Your task to perform on an android device: turn on javascript in the chrome app Image 0: 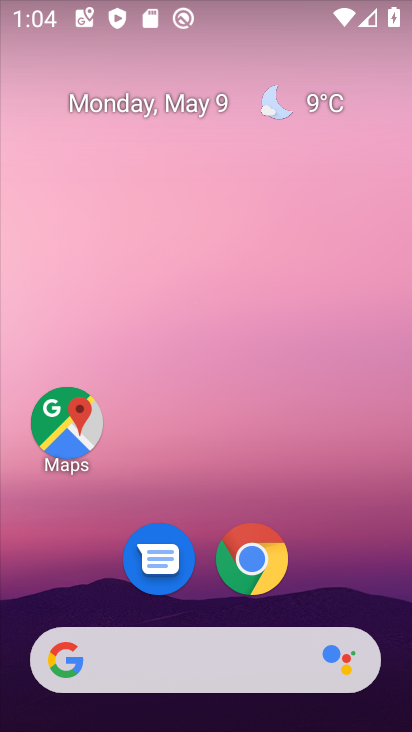
Step 0: drag from (330, 584) to (369, 255)
Your task to perform on an android device: turn on javascript in the chrome app Image 1: 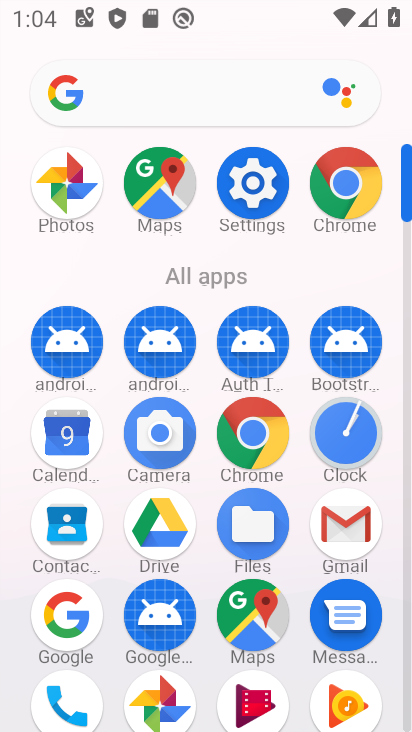
Step 1: click (353, 184)
Your task to perform on an android device: turn on javascript in the chrome app Image 2: 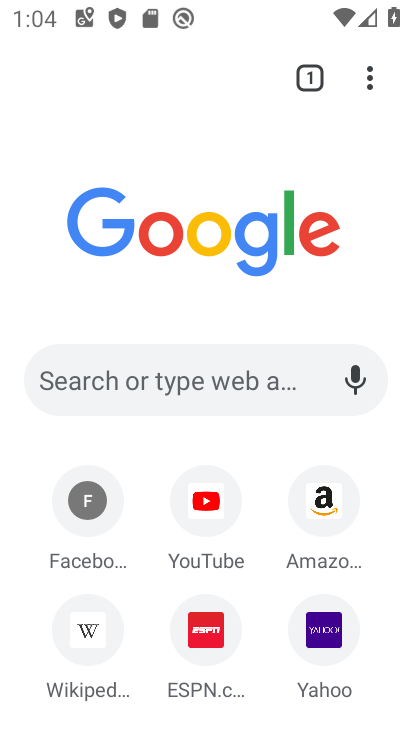
Step 2: click (372, 77)
Your task to perform on an android device: turn on javascript in the chrome app Image 3: 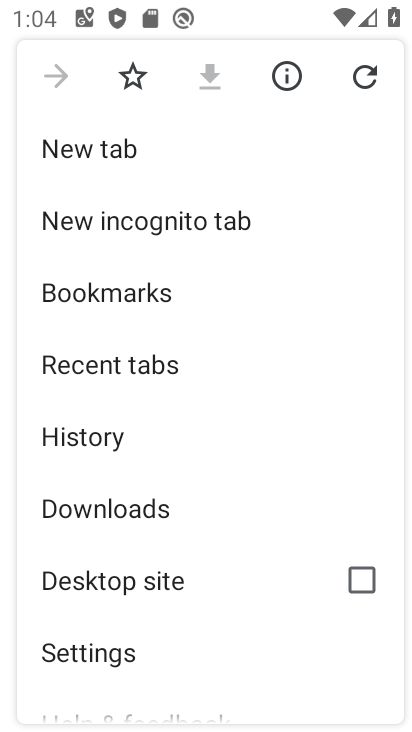
Step 3: click (139, 652)
Your task to perform on an android device: turn on javascript in the chrome app Image 4: 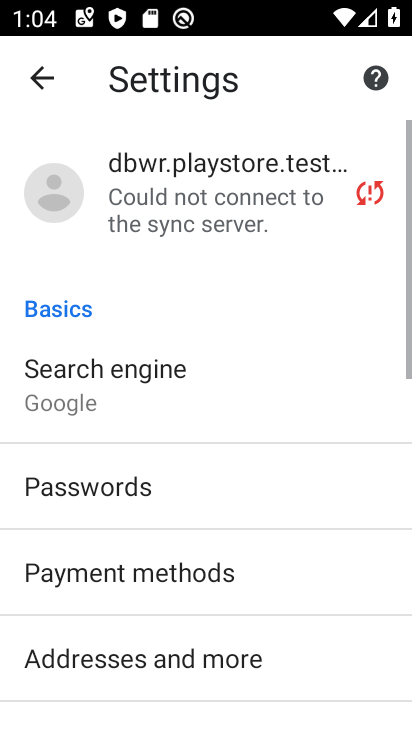
Step 4: drag from (287, 638) to (313, 277)
Your task to perform on an android device: turn on javascript in the chrome app Image 5: 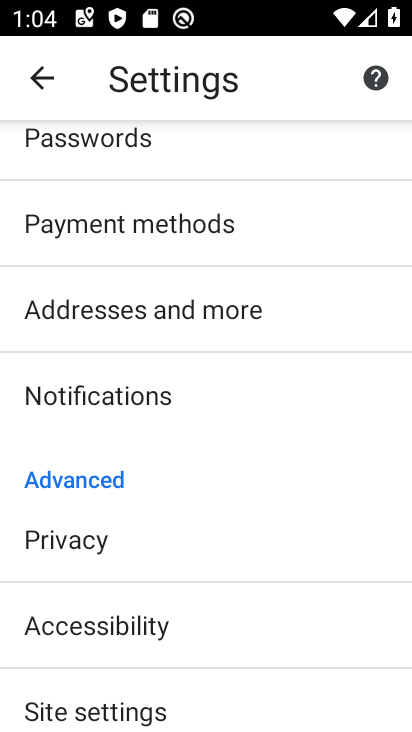
Step 5: drag from (186, 697) to (225, 460)
Your task to perform on an android device: turn on javascript in the chrome app Image 6: 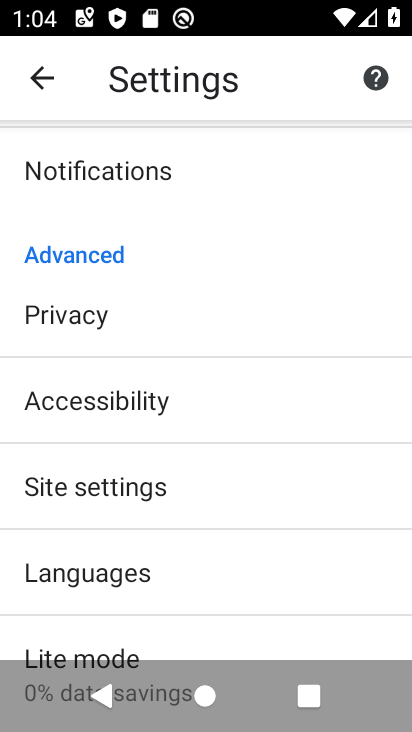
Step 6: click (221, 528)
Your task to perform on an android device: turn on javascript in the chrome app Image 7: 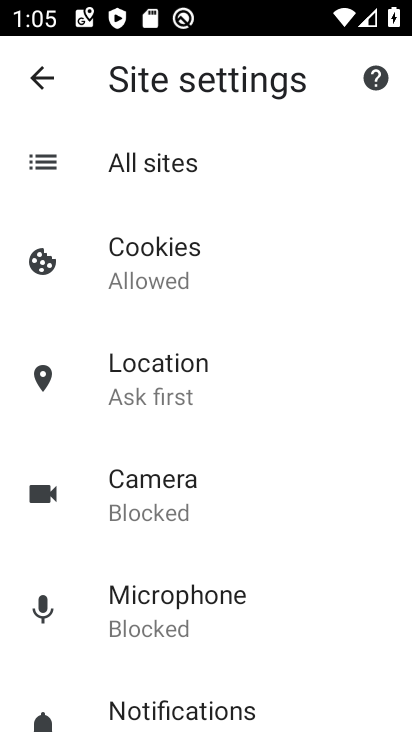
Step 7: drag from (276, 671) to (275, 439)
Your task to perform on an android device: turn on javascript in the chrome app Image 8: 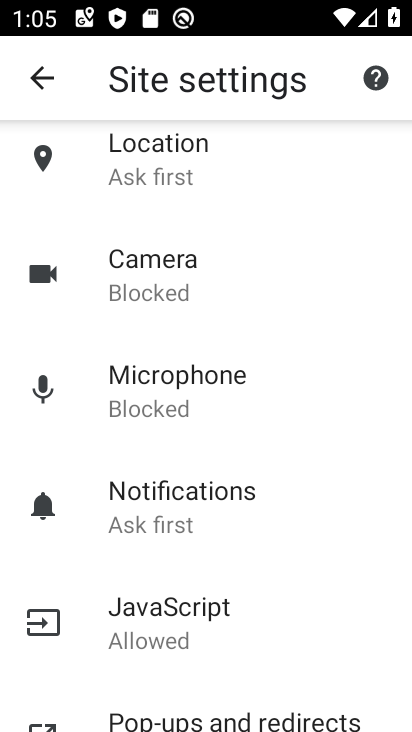
Step 8: click (220, 613)
Your task to perform on an android device: turn on javascript in the chrome app Image 9: 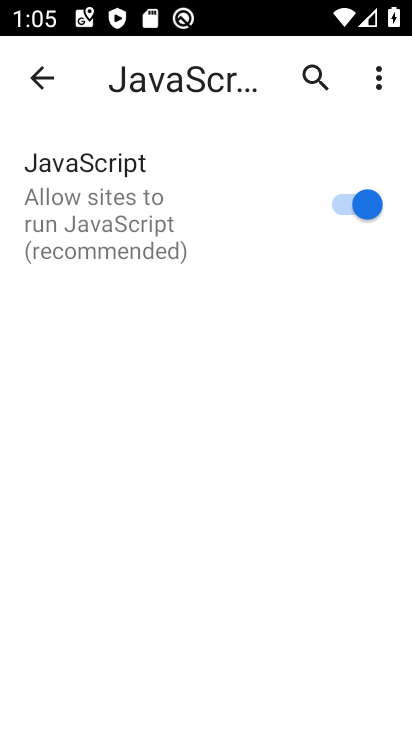
Step 9: task complete